Your task to perform on an android device: Go to Wikipedia Image 0: 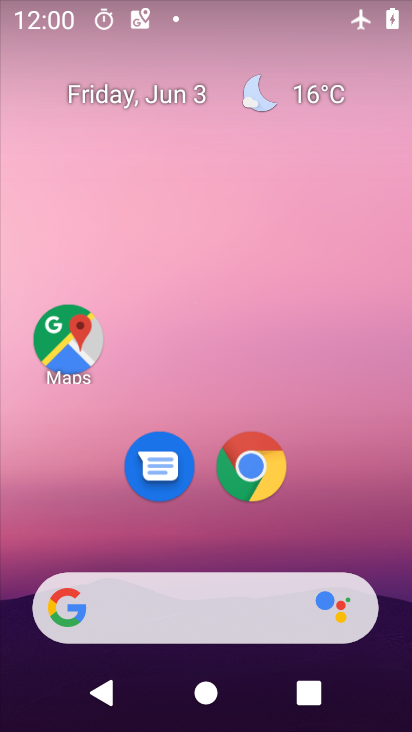
Step 0: click (251, 470)
Your task to perform on an android device: Go to Wikipedia Image 1: 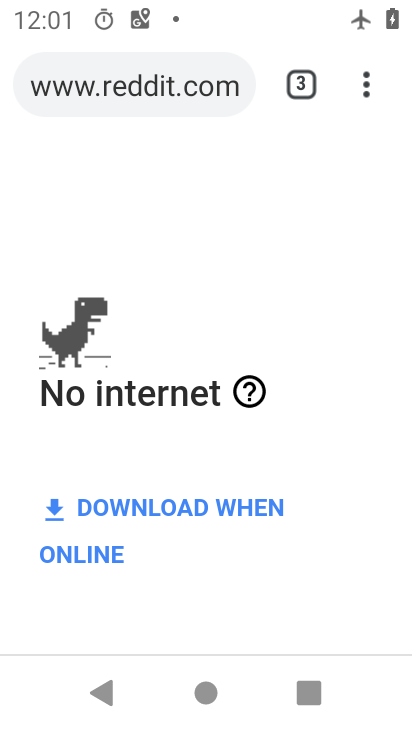
Step 1: task complete